Your task to perform on an android device: turn pop-ups on in chrome Image 0: 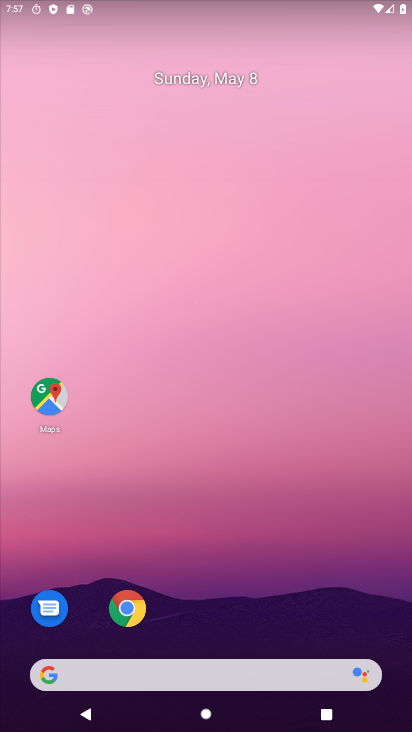
Step 0: click (128, 618)
Your task to perform on an android device: turn pop-ups on in chrome Image 1: 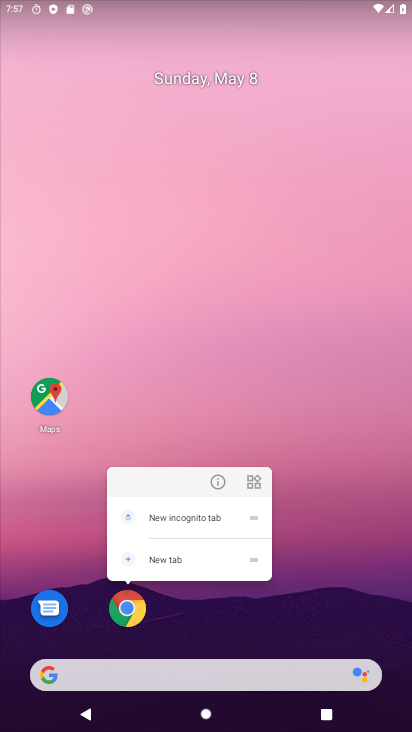
Step 1: click (129, 617)
Your task to perform on an android device: turn pop-ups on in chrome Image 2: 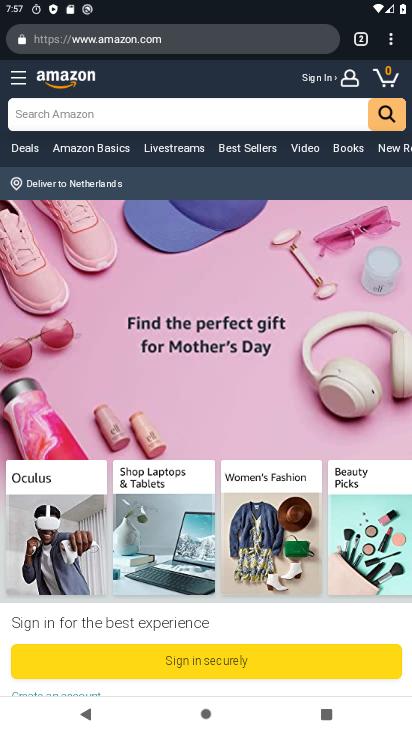
Step 2: drag from (385, 50) to (297, 480)
Your task to perform on an android device: turn pop-ups on in chrome Image 3: 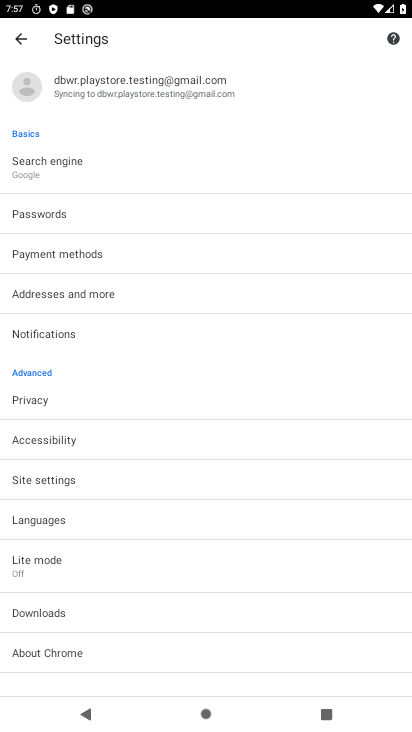
Step 3: click (78, 488)
Your task to perform on an android device: turn pop-ups on in chrome Image 4: 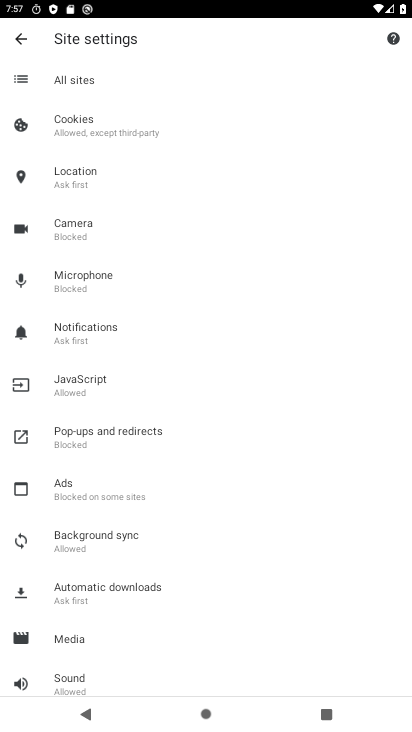
Step 4: click (91, 451)
Your task to perform on an android device: turn pop-ups on in chrome Image 5: 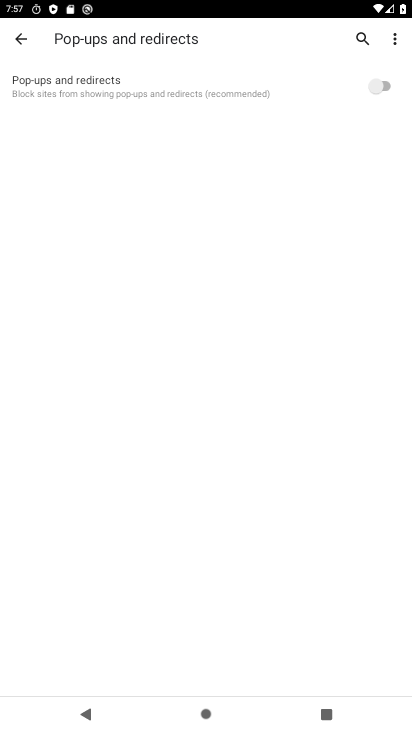
Step 5: click (384, 93)
Your task to perform on an android device: turn pop-ups on in chrome Image 6: 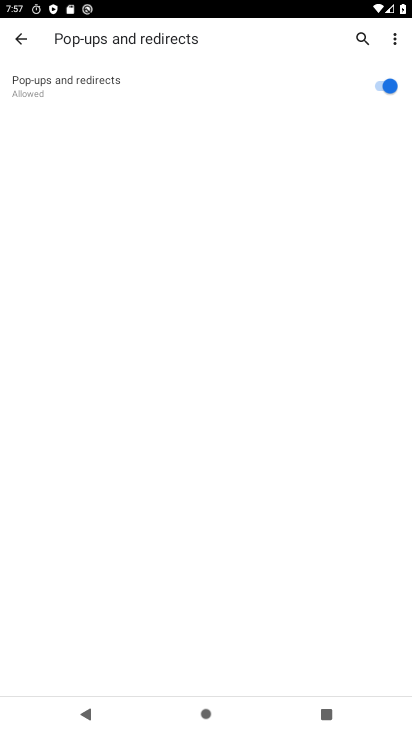
Step 6: task complete